Your task to perform on an android device: Do I have any events today? Image 0: 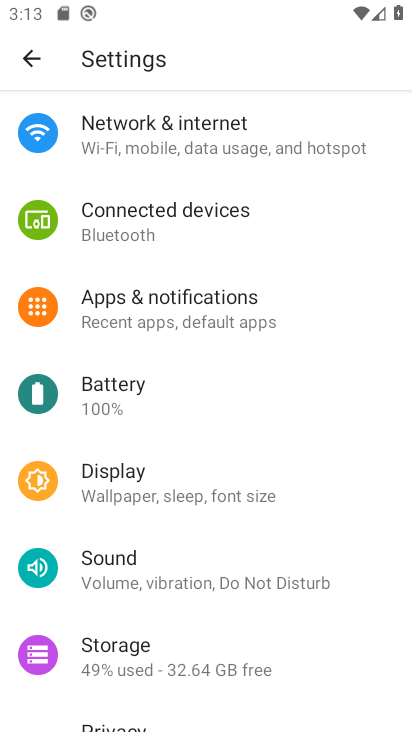
Step 0: press home button
Your task to perform on an android device: Do I have any events today? Image 1: 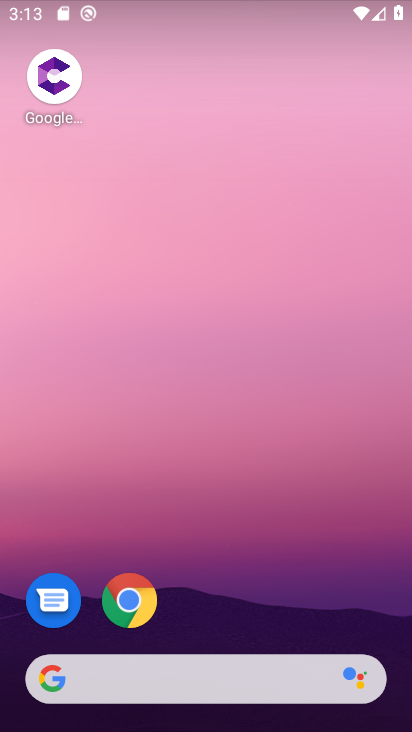
Step 1: drag from (312, 512) to (261, 72)
Your task to perform on an android device: Do I have any events today? Image 2: 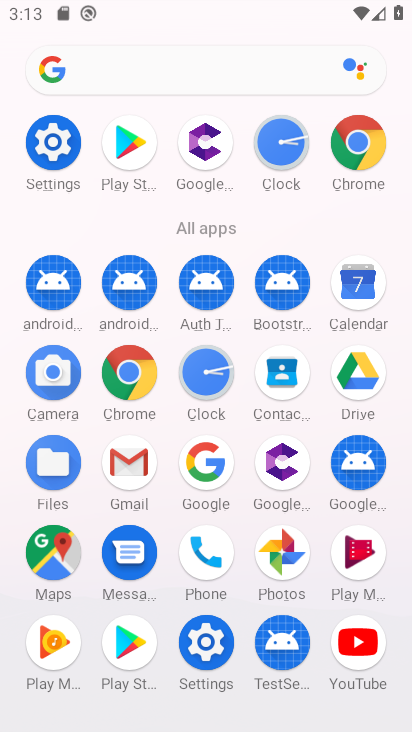
Step 2: click (364, 283)
Your task to perform on an android device: Do I have any events today? Image 3: 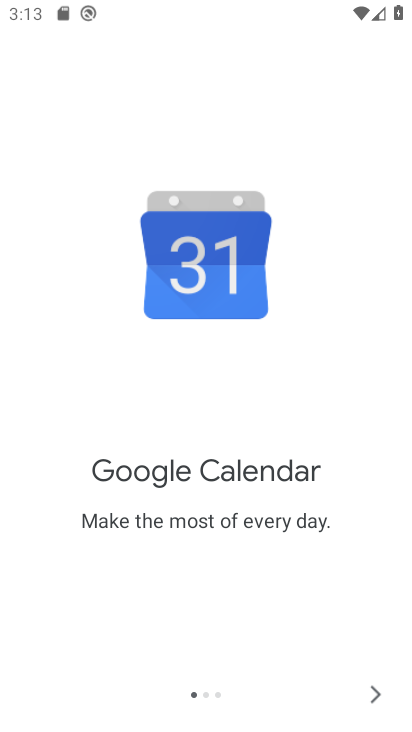
Step 3: click (369, 707)
Your task to perform on an android device: Do I have any events today? Image 4: 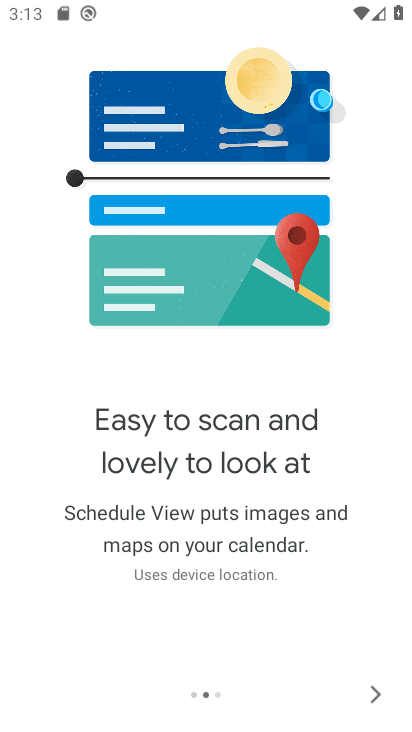
Step 4: click (369, 707)
Your task to perform on an android device: Do I have any events today? Image 5: 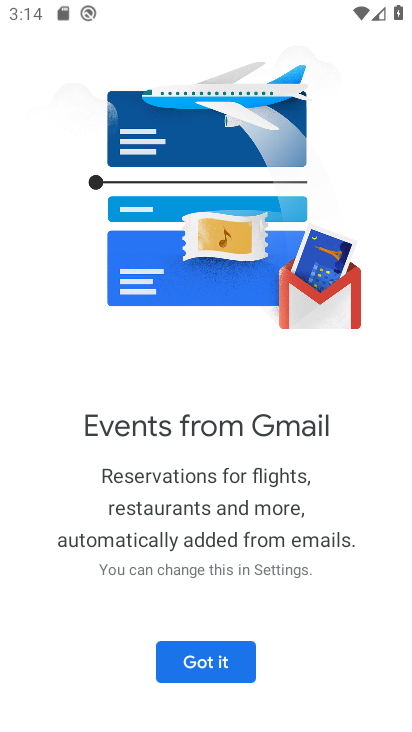
Step 5: click (227, 667)
Your task to perform on an android device: Do I have any events today? Image 6: 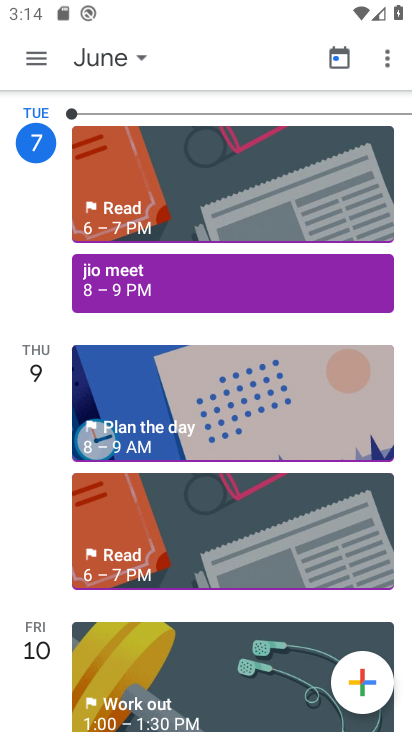
Step 6: click (104, 49)
Your task to perform on an android device: Do I have any events today? Image 7: 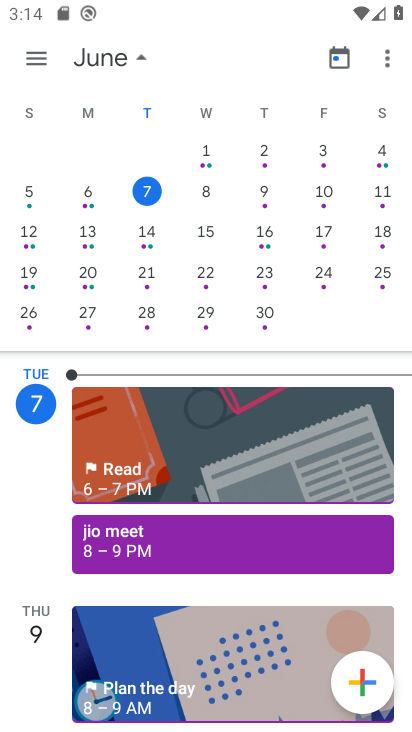
Step 7: task complete